Your task to perform on an android device: see creations saved in the google photos Image 0: 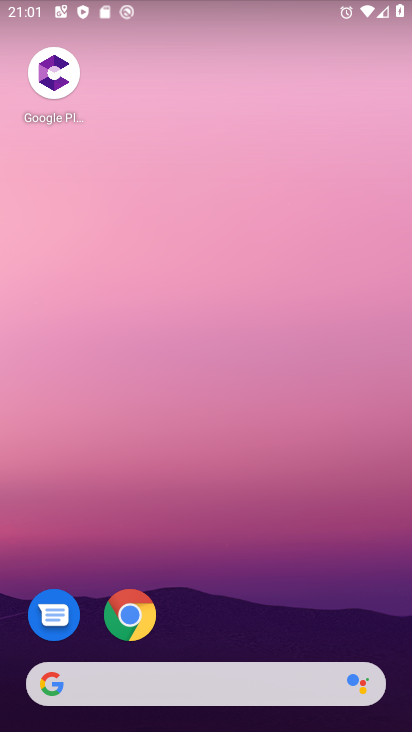
Step 0: drag from (226, 613) to (240, 139)
Your task to perform on an android device: see creations saved in the google photos Image 1: 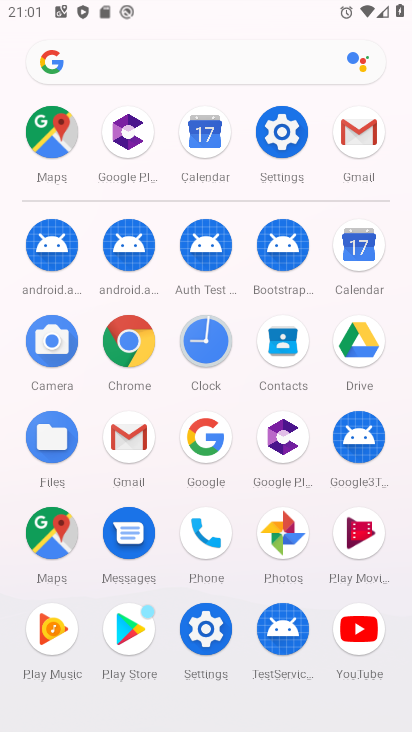
Step 1: click (275, 528)
Your task to perform on an android device: see creations saved in the google photos Image 2: 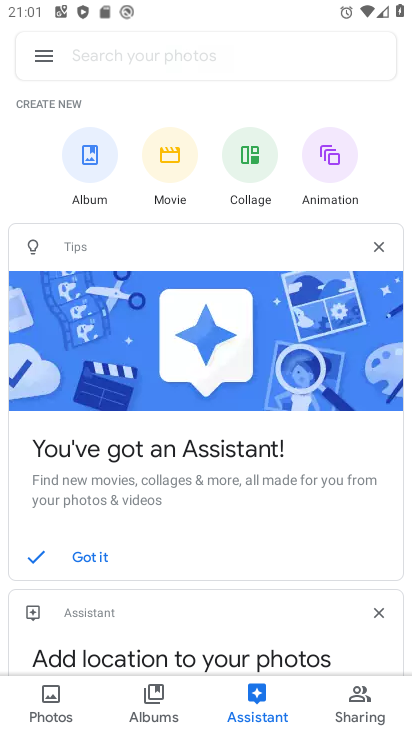
Step 2: click (161, 56)
Your task to perform on an android device: see creations saved in the google photos Image 3: 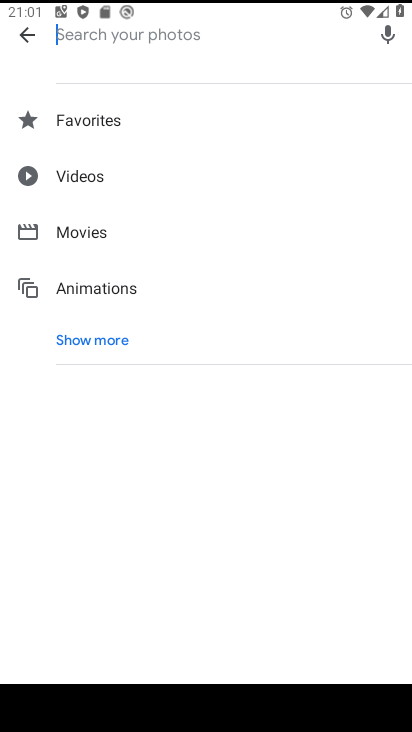
Step 3: click (111, 341)
Your task to perform on an android device: see creations saved in the google photos Image 4: 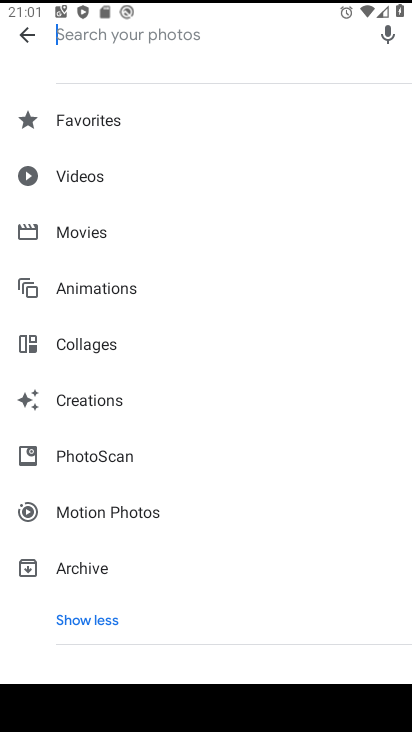
Step 4: click (79, 400)
Your task to perform on an android device: see creations saved in the google photos Image 5: 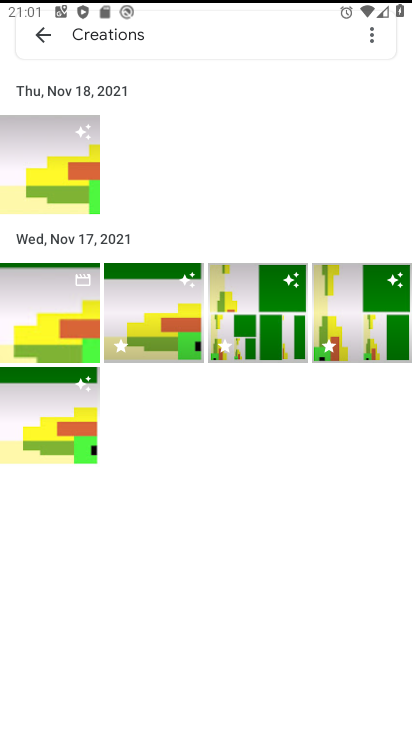
Step 5: task complete